Your task to perform on an android device: clear history in the chrome app Image 0: 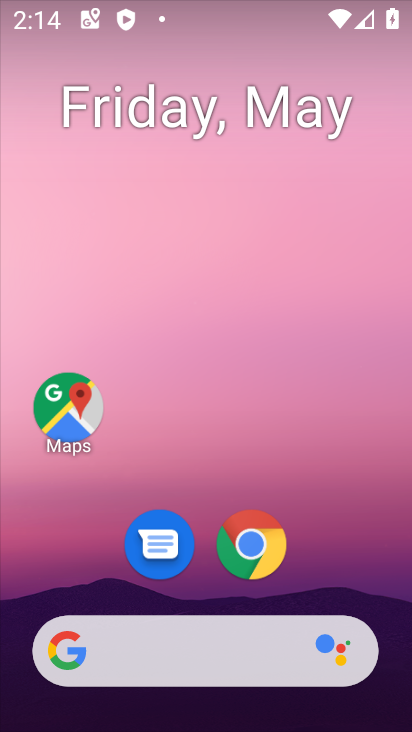
Step 0: click (254, 566)
Your task to perform on an android device: clear history in the chrome app Image 1: 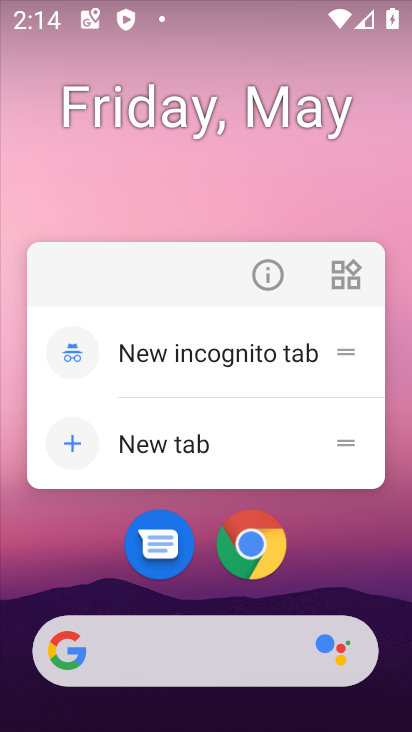
Step 1: click (254, 557)
Your task to perform on an android device: clear history in the chrome app Image 2: 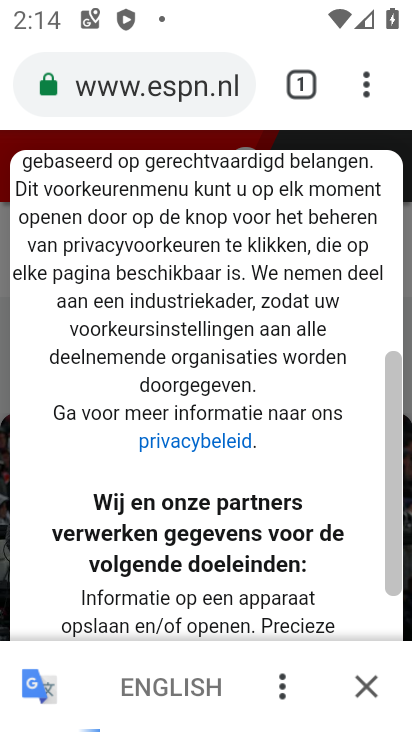
Step 2: drag from (359, 80) to (86, 458)
Your task to perform on an android device: clear history in the chrome app Image 3: 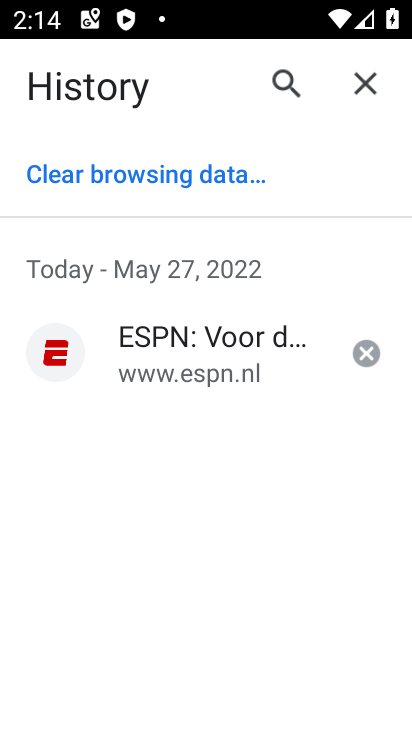
Step 3: click (105, 179)
Your task to perform on an android device: clear history in the chrome app Image 4: 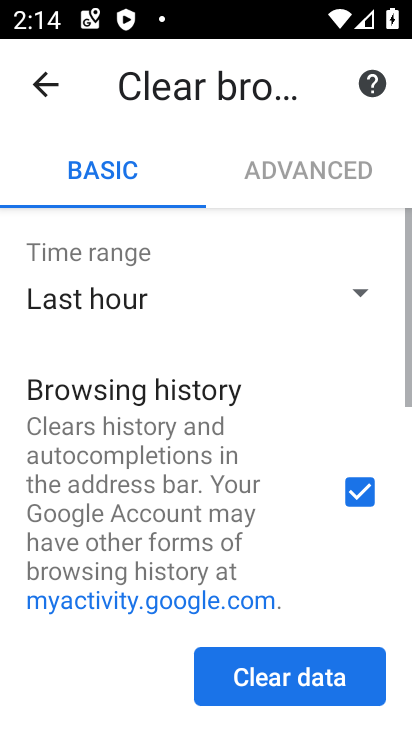
Step 4: drag from (253, 619) to (280, 277)
Your task to perform on an android device: clear history in the chrome app Image 5: 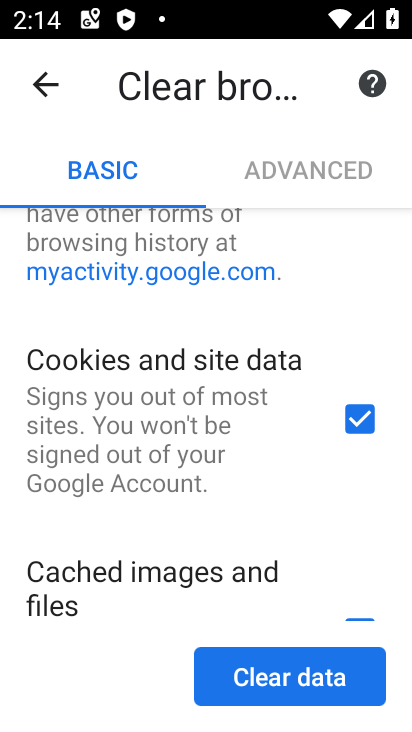
Step 5: click (272, 690)
Your task to perform on an android device: clear history in the chrome app Image 6: 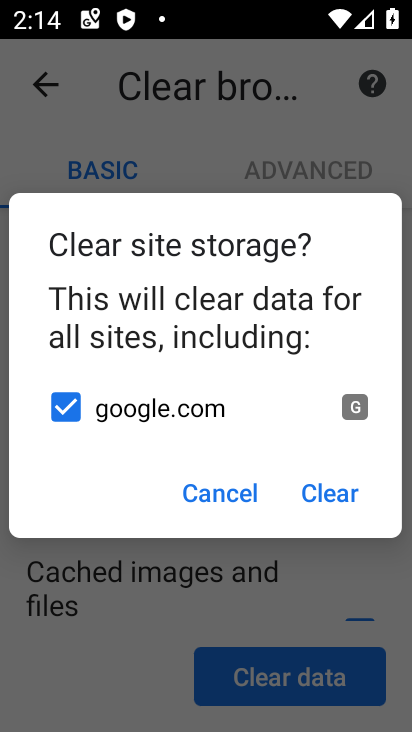
Step 6: click (331, 487)
Your task to perform on an android device: clear history in the chrome app Image 7: 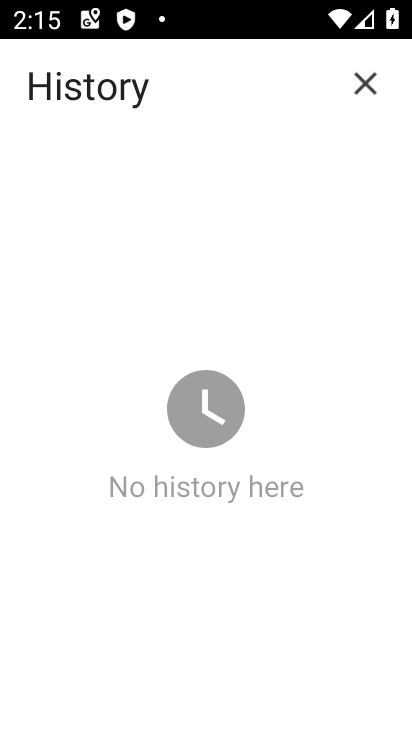
Step 7: task complete